Your task to perform on an android device: Open battery settings Image 0: 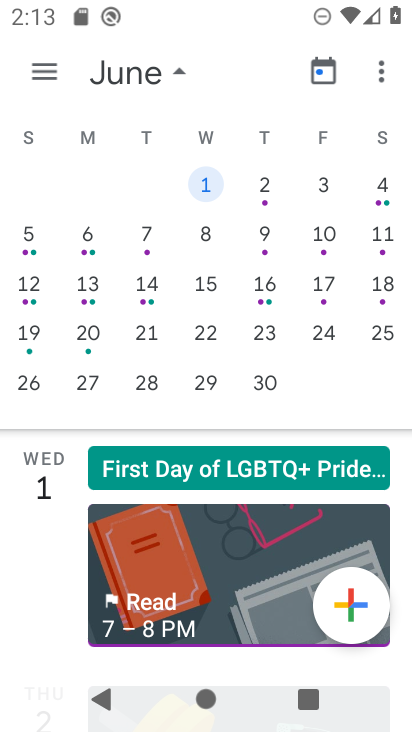
Step 0: press home button
Your task to perform on an android device: Open battery settings Image 1: 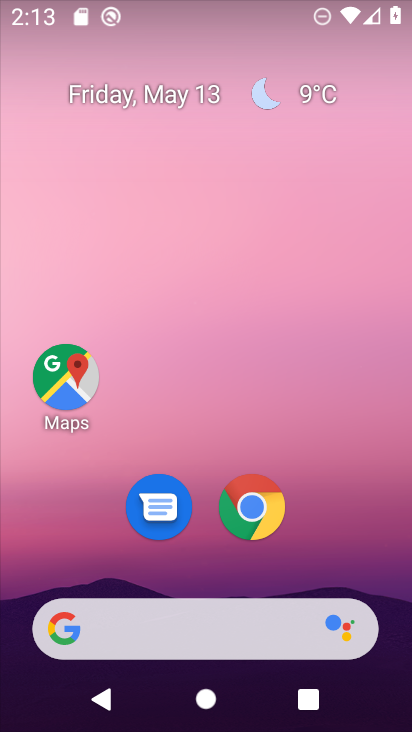
Step 1: drag from (386, 533) to (398, 100)
Your task to perform on an android device: Open battery settings Image 2: 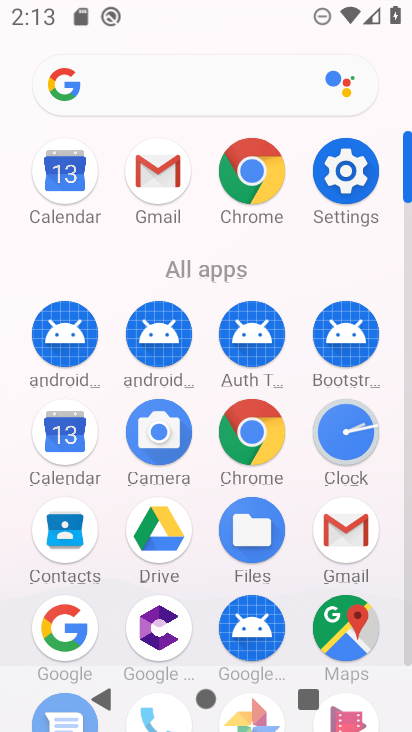
Step 2: click (340, 176)
Your task to perform on an android device: Open battery settings Image 3: 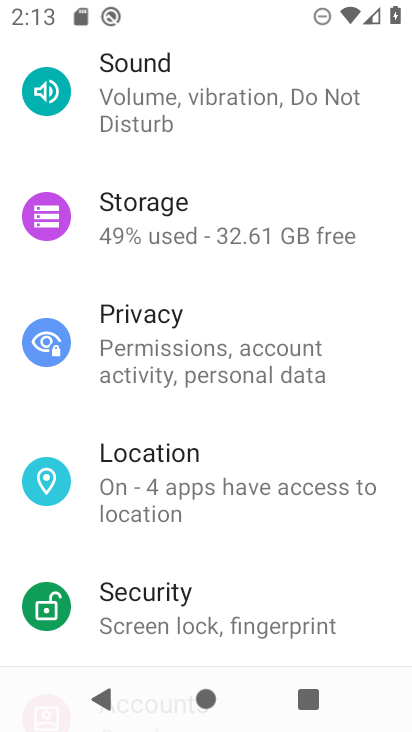
Step 3: drag from (218, 192) to (204, 549)
Your task to perform on an android device: Open battery settings Image 4: 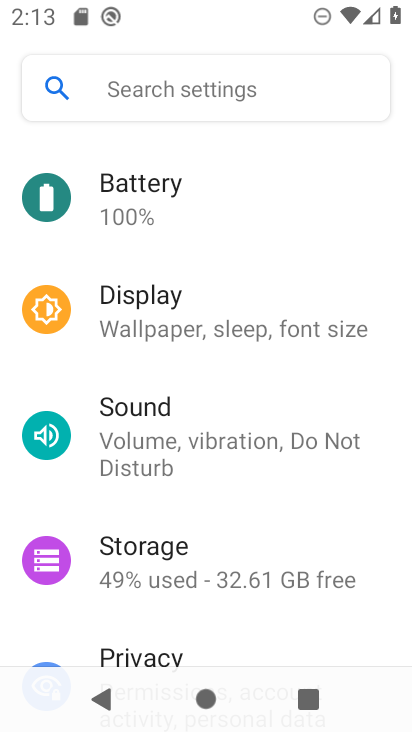
Step 4: click (135, 206)
Your task to perform on an android device: Open battery settings Image 5: 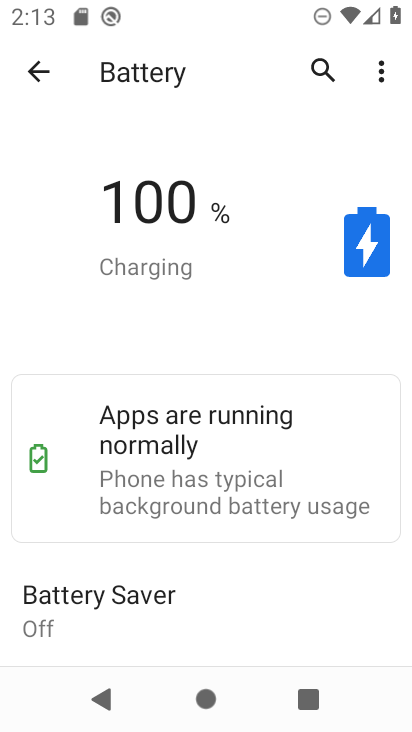
Step 5: task complete